Your task to perform on an android device: change the clock style Image 0: 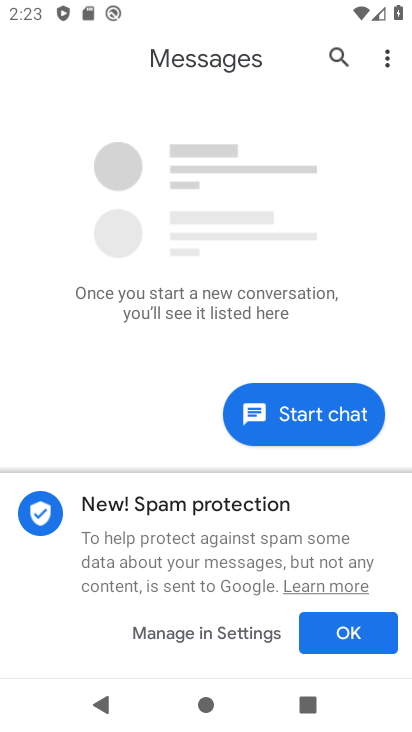
Step 0: press home button
Your task to perform on an android device: change the clock style Image 1: 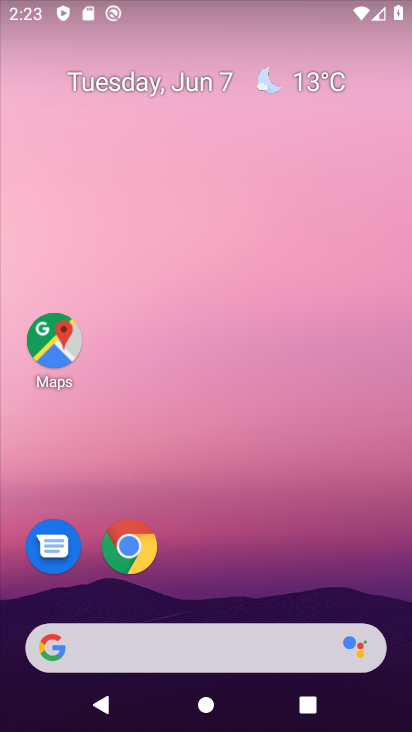
Step 1: drag from (216, 604) to (210, 172)
Your task to perform on an android device: change the clock style Image 2: 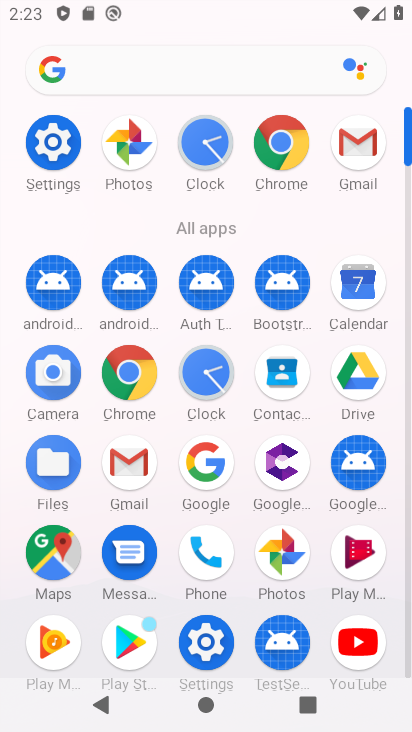
Step 2: click (218, 119)
Your task to perform on an android device: change the clock style Image 3: 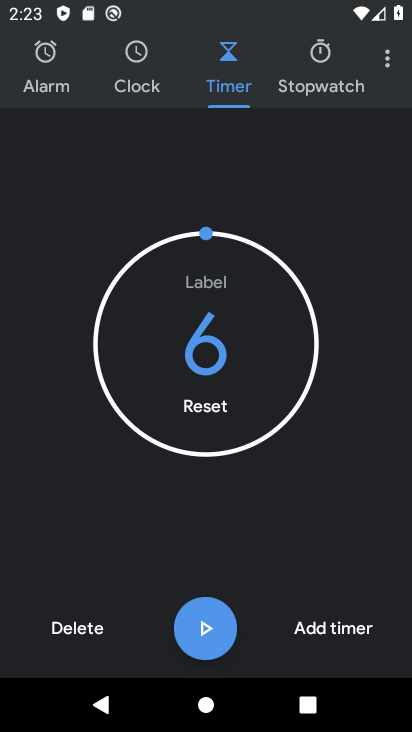
Step 3: click (382, 55)
Your task to perform on an android device: change the clock style Image 4: 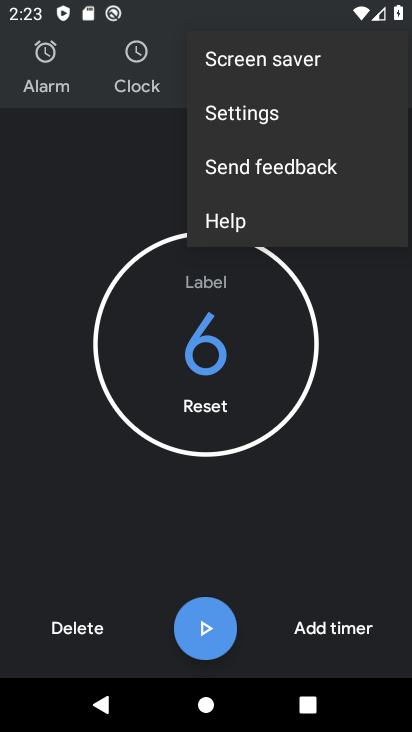
Step 4: click (266, 107)
Your task to perform on an android device: change the clock style Image 5: 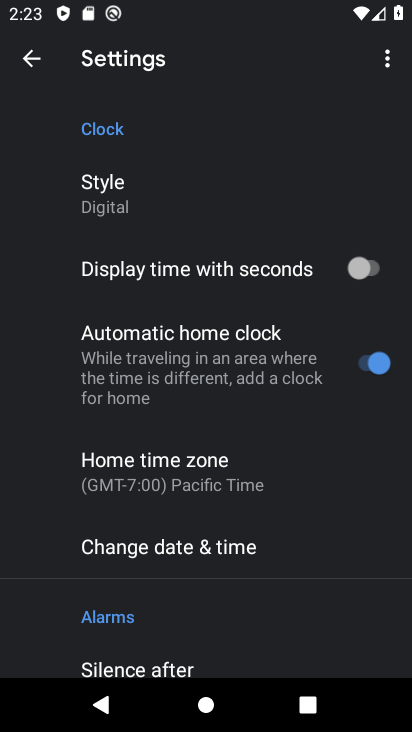
Step 5: click (132, 212)
Your task to perform on an android device: change the clock style Image 6: 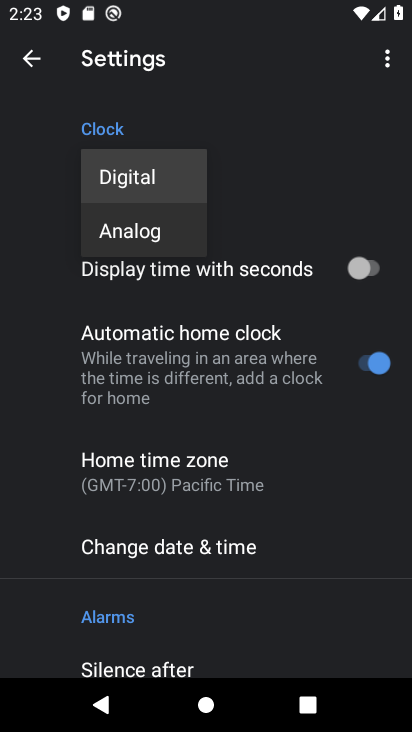
Step 6: click (140, 239)
Your task to perform on an android device: change the clock style Image 7: 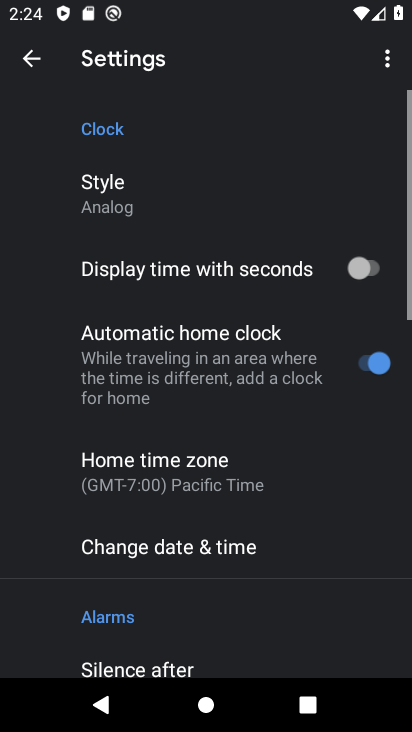
Step 7: task complete